Your task to perform on an android device: check android version Image 0: 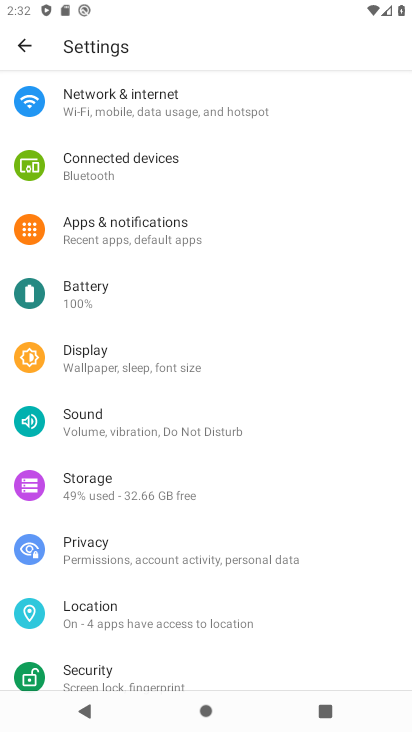
Step 0: press home button
Your task to perform on an android device: check android version Image 1: 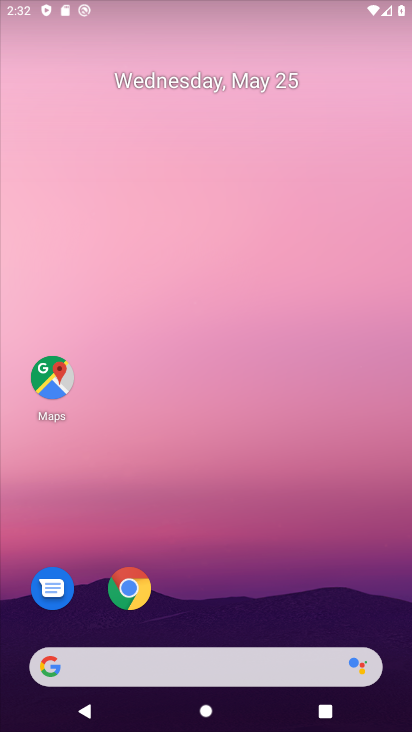
Step 1: drag from (256, 606) to (270, 47)
Your task to perform on an android device: check android version Image 2: 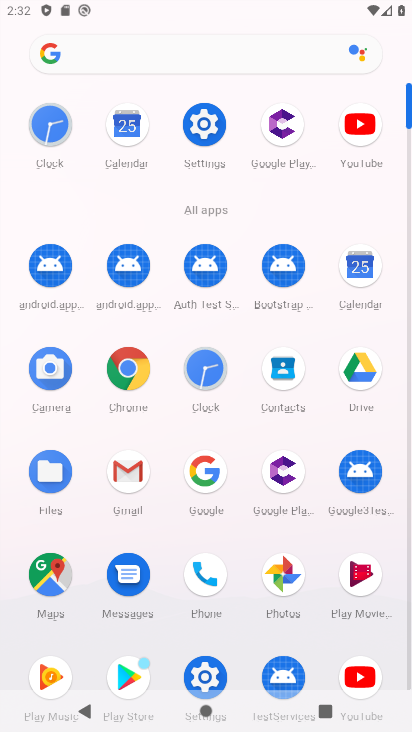
Step 2: click (208, 665)
Your task to perform on an android device: check android version Image 3: 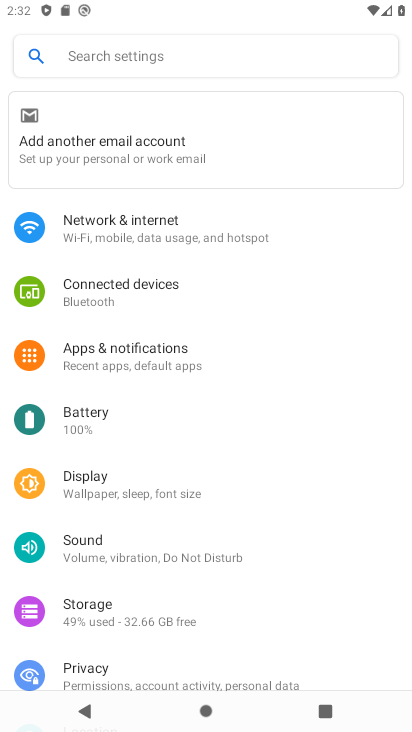
Step 3: drag from (208, 665) to (248, 188)
Your task to perform on an android device: check android version Image 4: 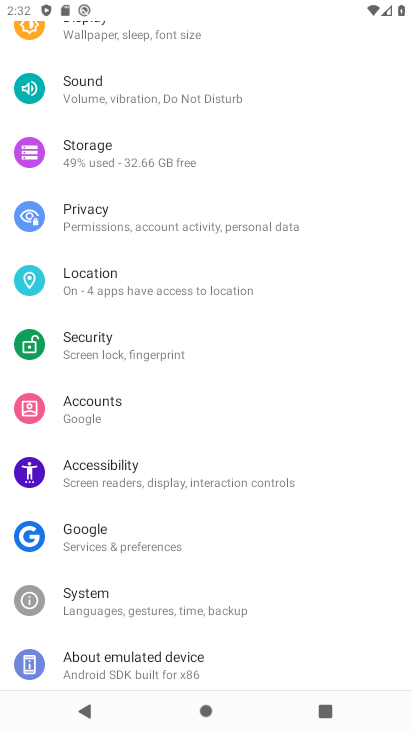
Step 4: click (205, 657)
Your task to perform on an android device: check android version Image 5: 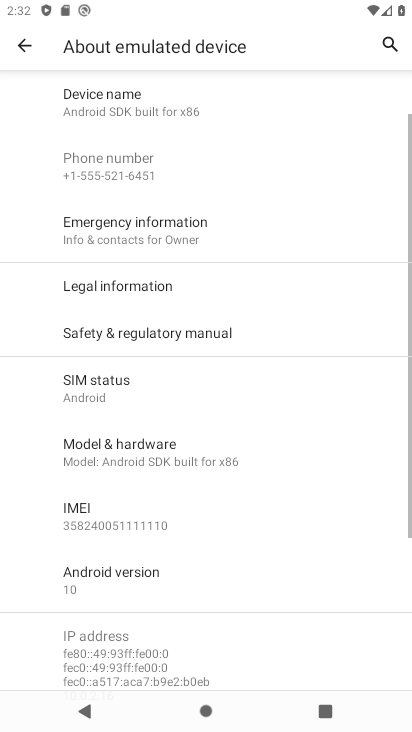
Step 5: click (147, 566)
Your task to perform on an android device: check android version Image 6: 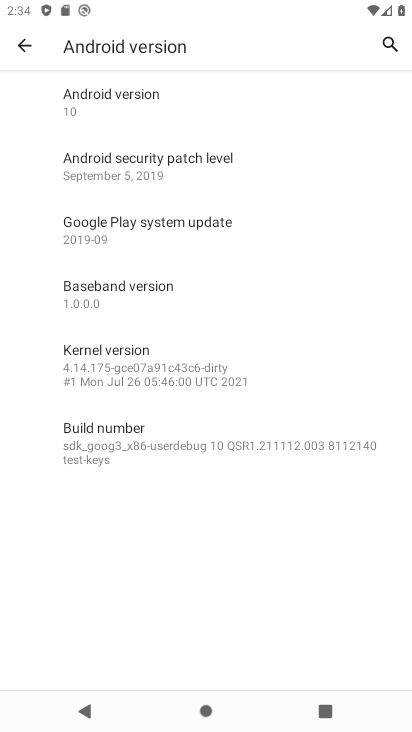
Step 6: task complete